Your task to perform on an android device: Open Yahoo.com Image 0: 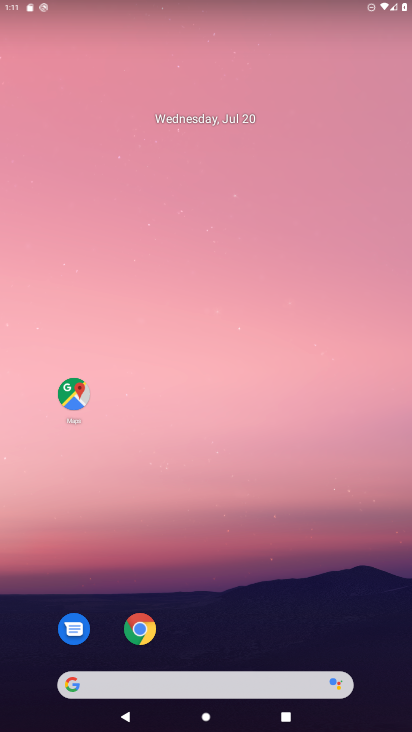
Step 0: click (138, 625)
Your task to perform on an android device: Open Yahoo.com Image 1: 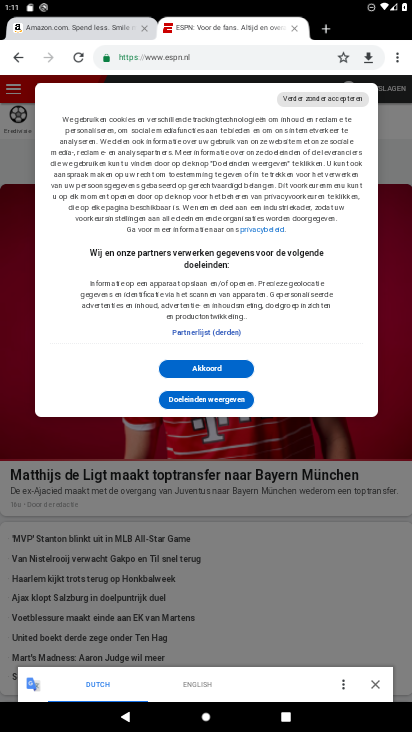
Step 1: click (291, 28)
Your task to perform on an android device: Open Yahoo.com Image 2: 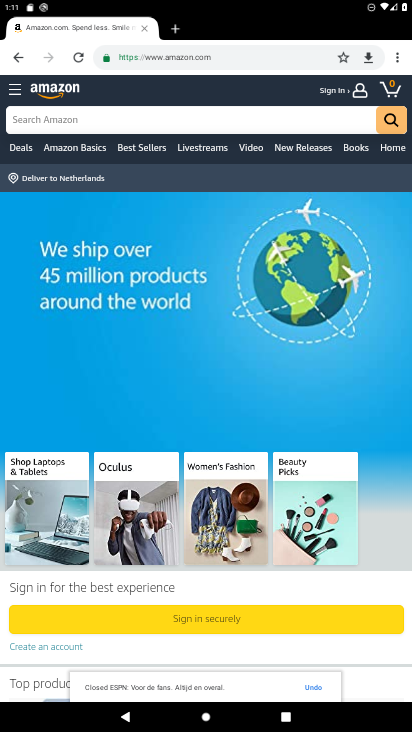
Step 2: click (212, 60)
Your task to perform on an android device: Open Yahoo.com Image 3: 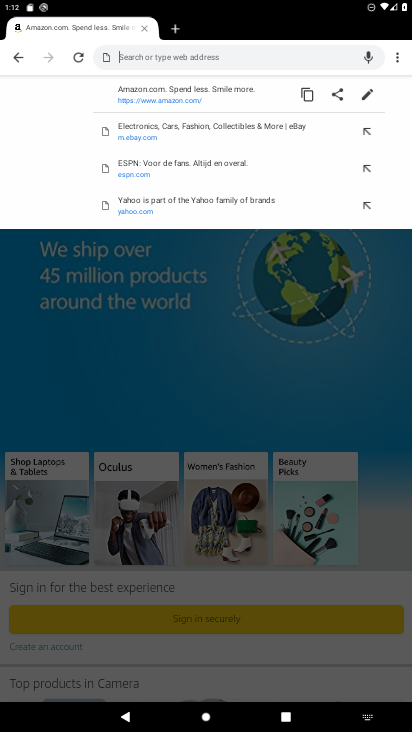
Step 3: type "www.yahoo.co"
Your task to perform on an android device: Open Yahoo.com Image 4: 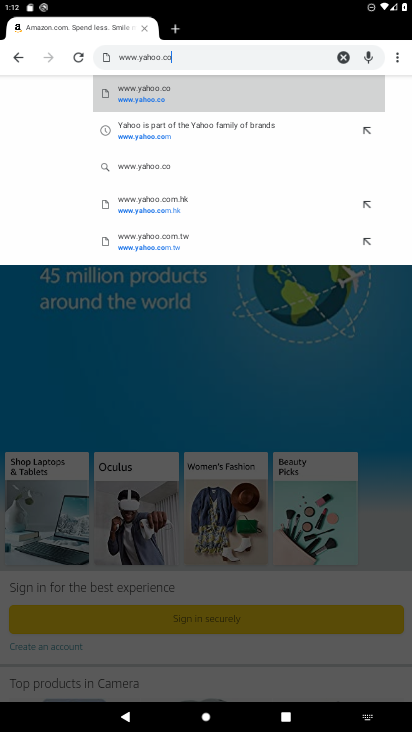
Step 4: type "m"
Your task to perform on an android device: Open Yahoo.com Image 5: 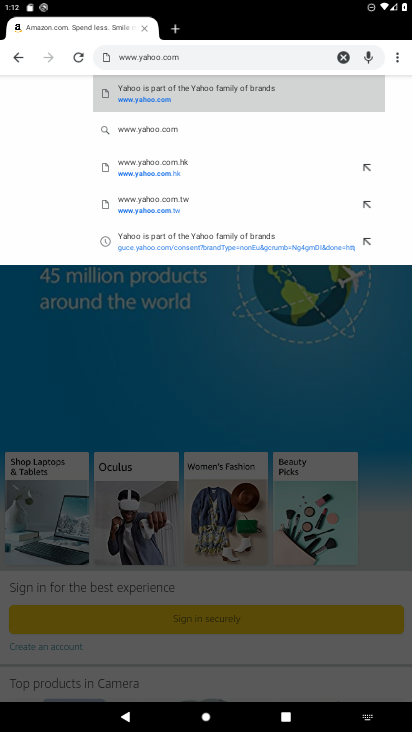
Step 5: click (136, 95)
Your task to perform on an android device: Open Yahoo.com Image 6: 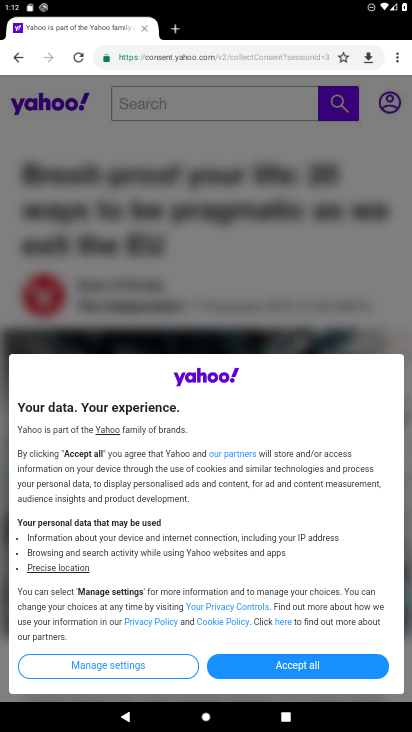
Step 6: task complete